Your task to perform on an android device: What is the news today? Image 0: 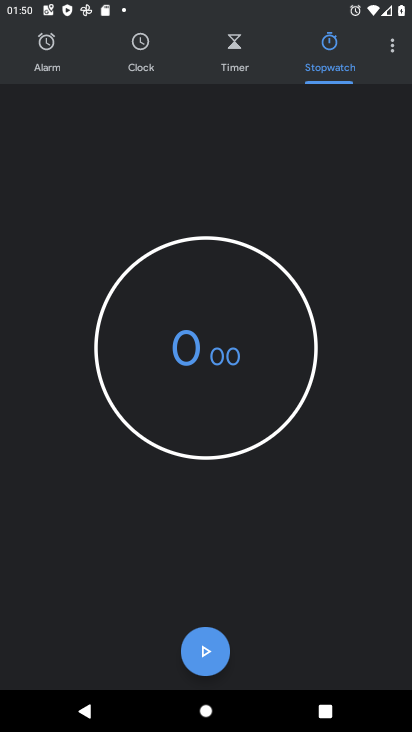
Step 0: press home button
Your task to perform on an android device: What is the news today? Image 1: 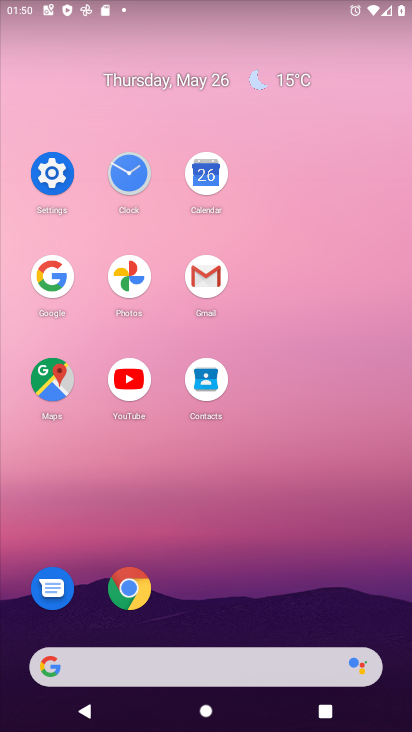
Step 1: click (61, 271)
Your task to perform on an android device: What is the news today? Image 2: 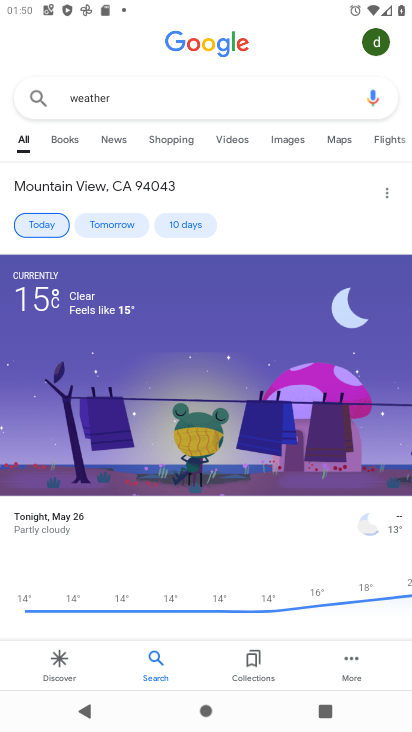
Step 2: click (183, 88)
Your task to perform on an android device: What is the news today? Image 3: 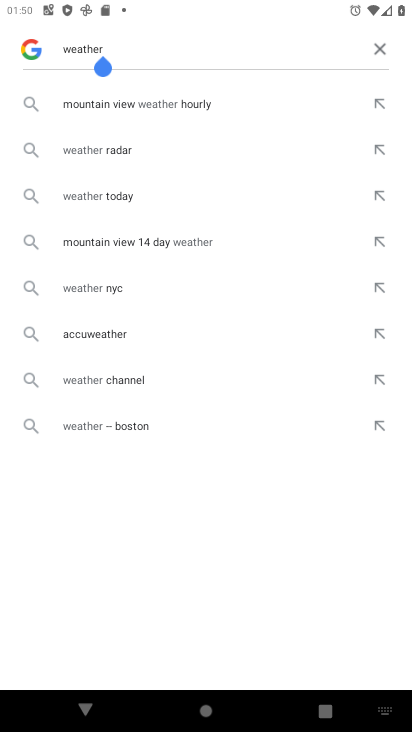
Step 3: click (387, 49)
Your task to perform on an android device: What is the news today? Image 4: 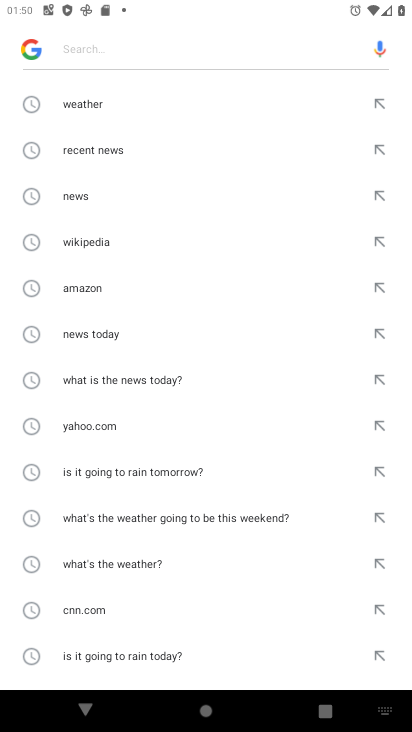
Step 4: click (66, 194)
Your task to perform on an android device: What is the news today? Image 5: 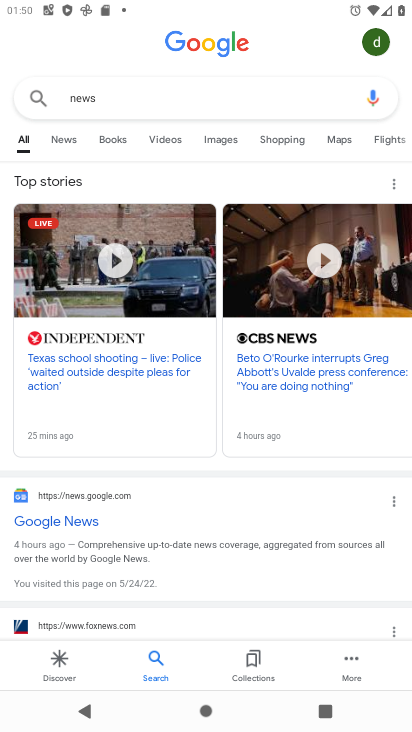
Step 5: task complete